Your task to perform on an android device: Open accessibility settings Image 0: 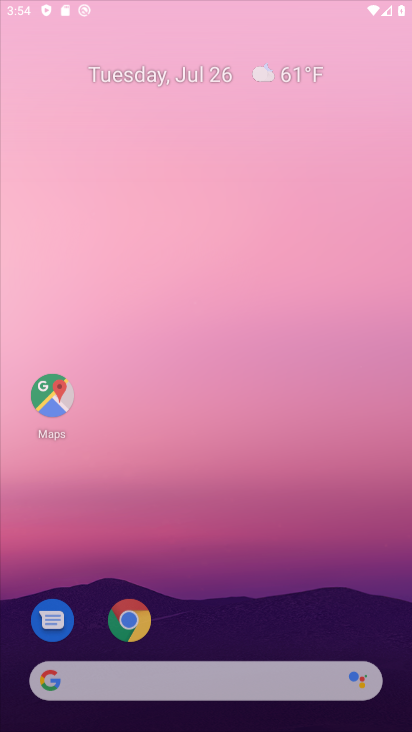
Step 0: press back button
Your task to perform on an android device: Open accessibility settings Image 1: 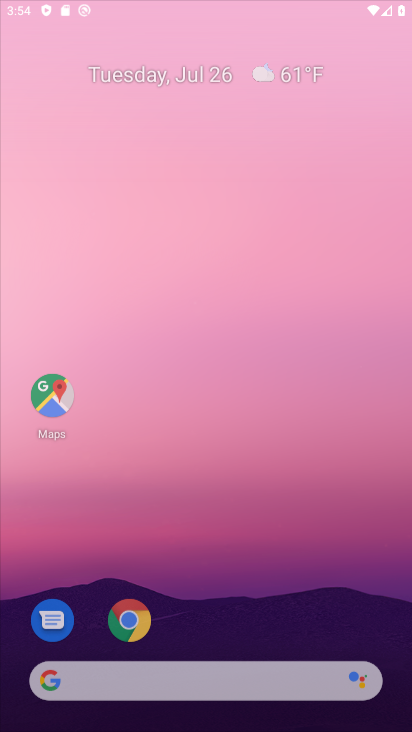
Step 1: press home button
Your task to perform on an android device: Open accessibility settings Image 2: 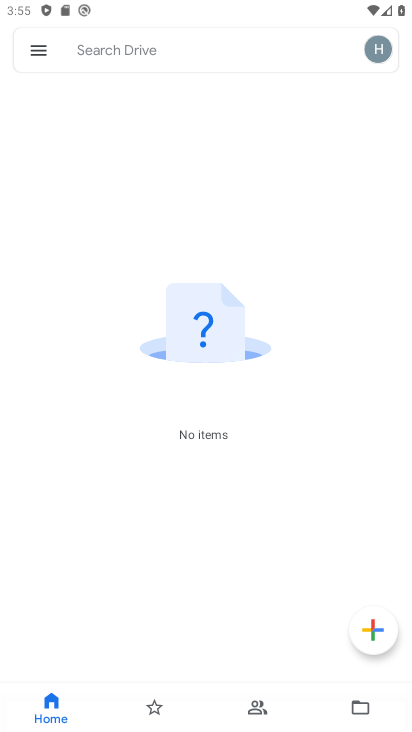
Step 2: click (193, 139)
Your task to perform on an android device: Open accessibility settings Image 3: 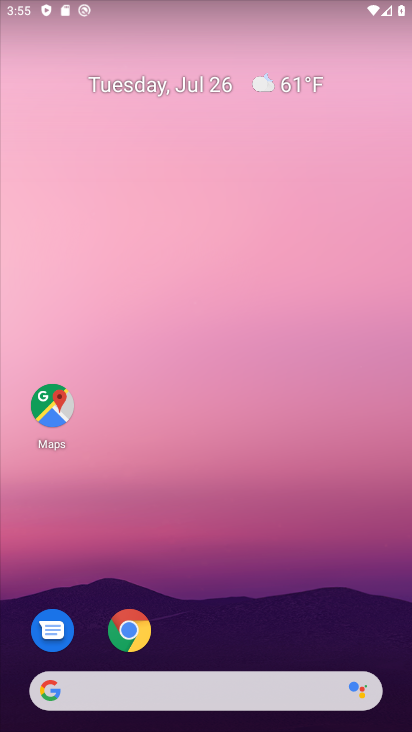
Step 3: drag from (205, 521) to (170, 102)
Your task to perform on an android device: Open accessibility settings Image 4: 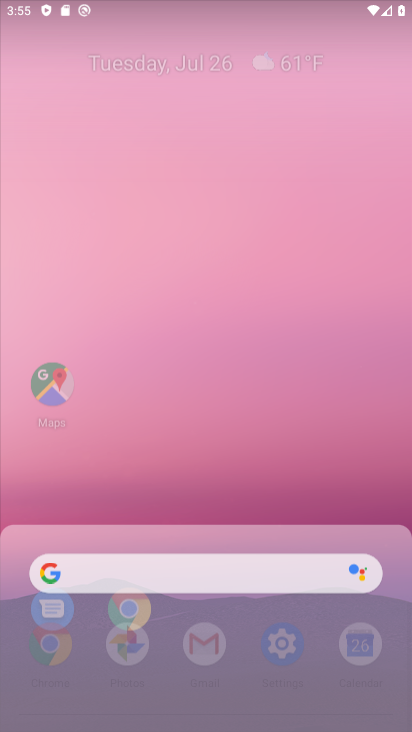
Step 4: drag from (218, 523) to (156, 95)
Your task to perform on an android device: Open accessibility settings Image 5: 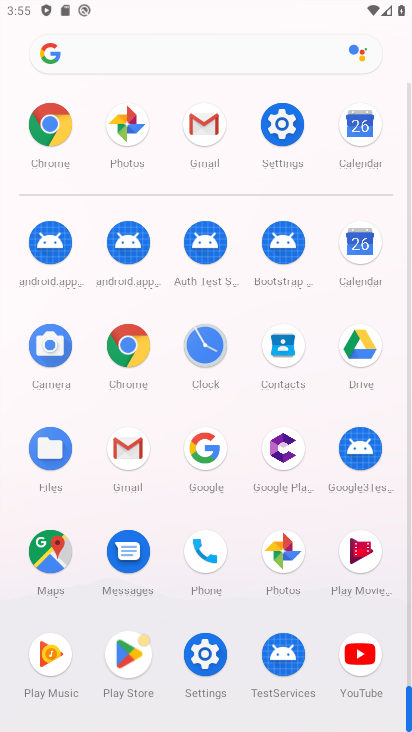
Step 5: drag from (278, 545) to (292, 130)
Your task to perform on an android device: Open accessibility settings Image 6: 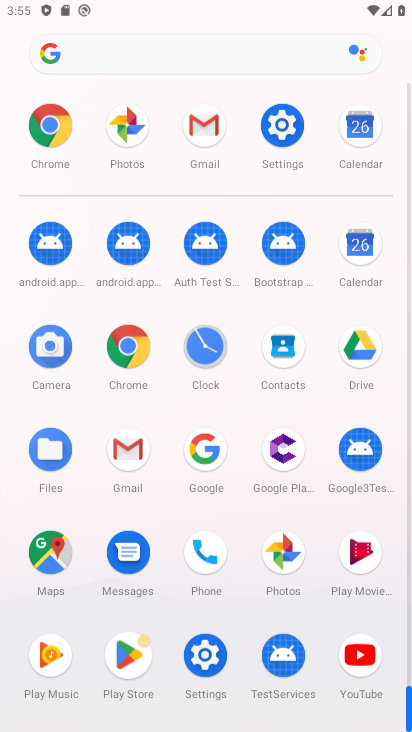
Step 6: drag from (258, 424) to (238, 105)
Your task to perform on an android device: Open accessibility settings Image 7: 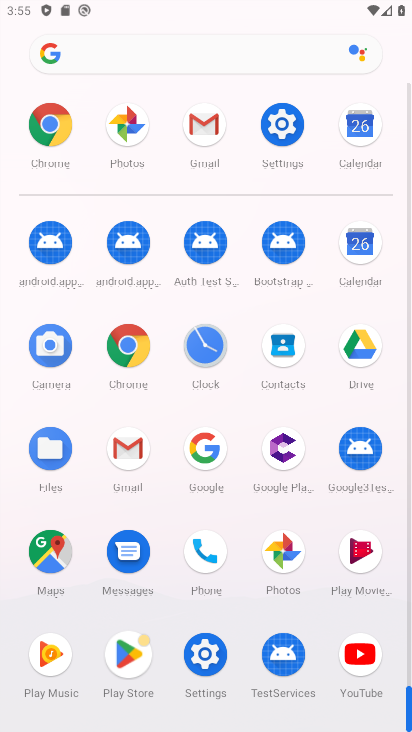
Step 7: click (55, 549)
Your task to perform on an android device: Open accessibility settings Image 8: 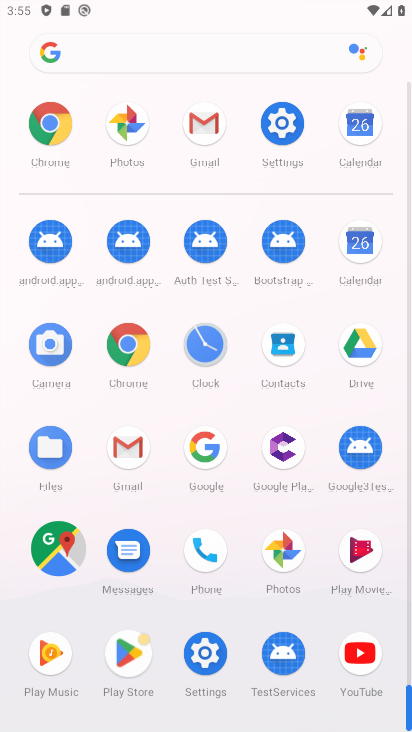
Step 8: click (55, 551)
Your task to perform on an android device: Open accessibility settings Image 9: 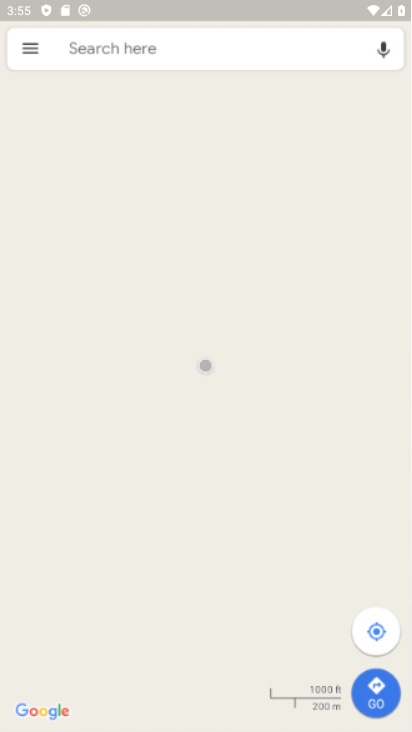
Step 9: click (55, 551)
Your task to perform on an android device: Open accessibility settings Image 10: 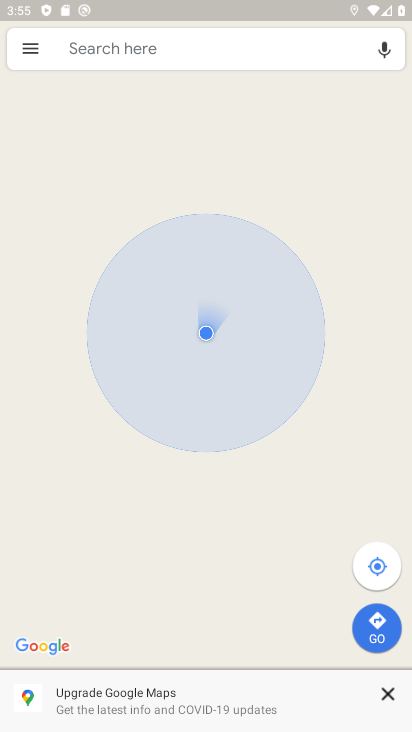
Step 10: press back button
Your task to perform on an android device: Open accessibility settings Image 11: 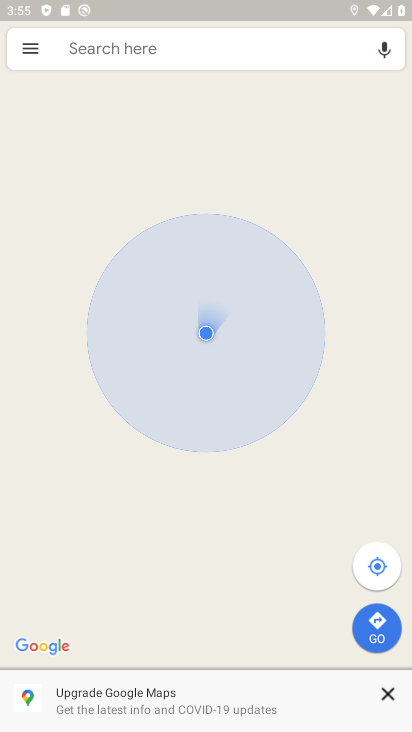
Step 11: press back button
Your task to perform on an android device: Open accessibility settings Image 12: 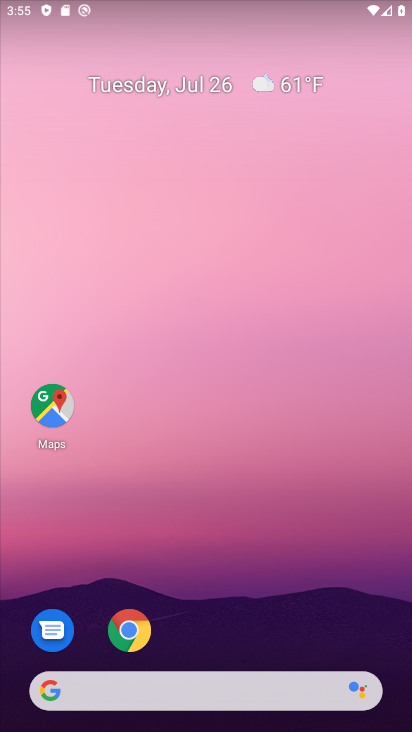
Step 12: drag from (181, 557) to (189, 29)
Your task to perform on an android device: Open accessibility settings Image 13: 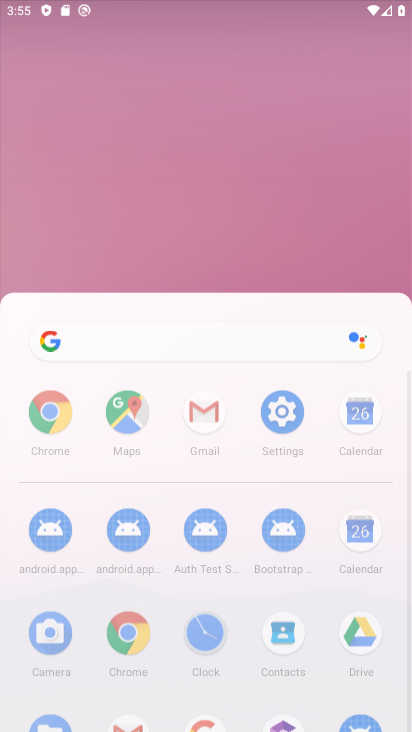
Step 13: drag from (235, 466) to (241, 137)
Your task to perform on an android device: Open accessibility settings Image 14: 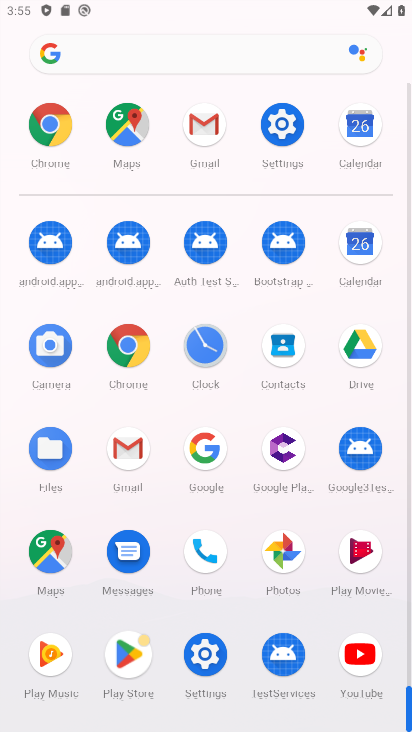
Step 14: click (205, 653)
Your task to perform on an android device: Open accessibility settings Image 15: 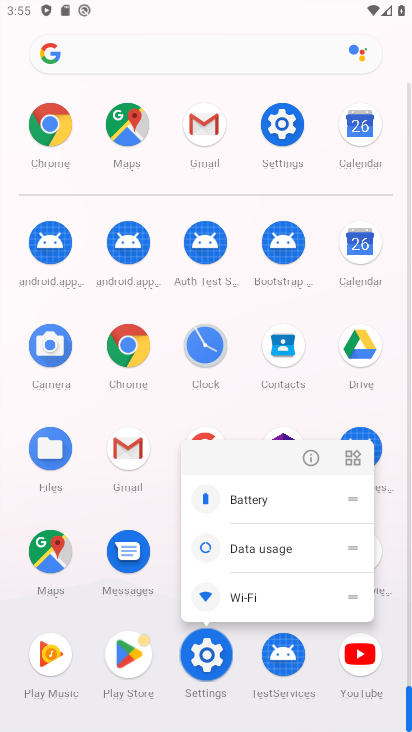
Step 15: click (208, 660)
Your task to perform on an android device: Open accessibility settings Image 16: 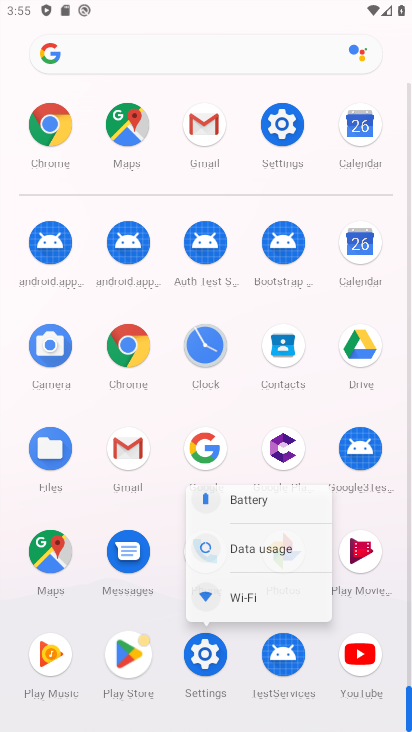
Step 16: click (208, 660)
Your task to perform on an android device: Open accessibility settings Image 17: 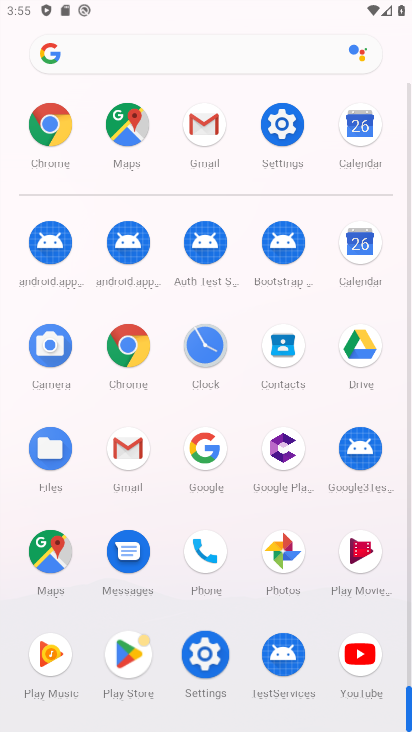
Step 17: click (205, 663)
Your task to perform on an android device: Open accessibility settings Image 18: 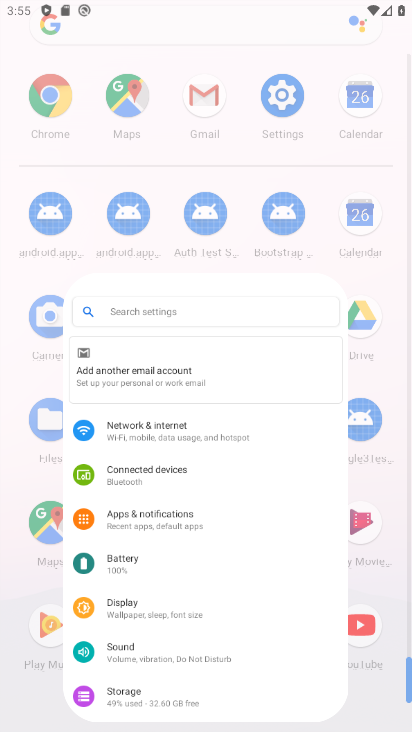
Step 18: click (204, 664)
Your task to perform on an android device: Open accessibility settings Image 19: 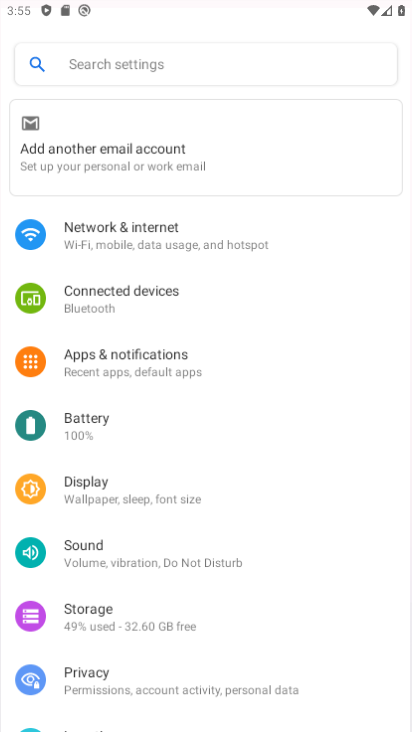
Step 19: click (202, 664)
Your task to perform on an android device: Open accessibility settings Image 20: 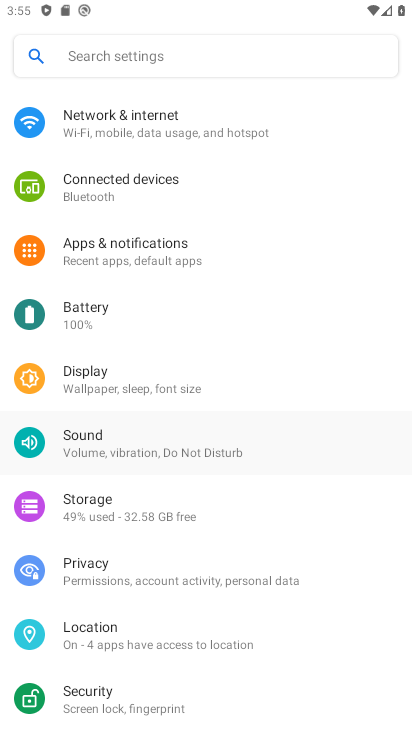
Step 20: click (200, 664)
Your task to perform on an android device: Open accessibility settings Image 21: 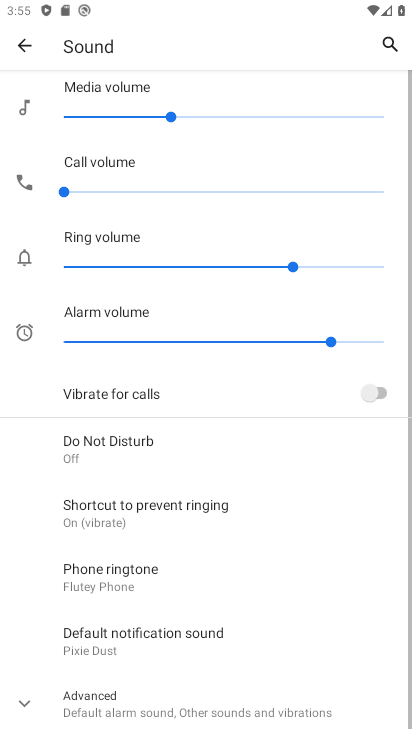
Step 21: drag from (154, 544) to (152, 174)
Your task to perform on an android device: Open accessibility settings Image 22: 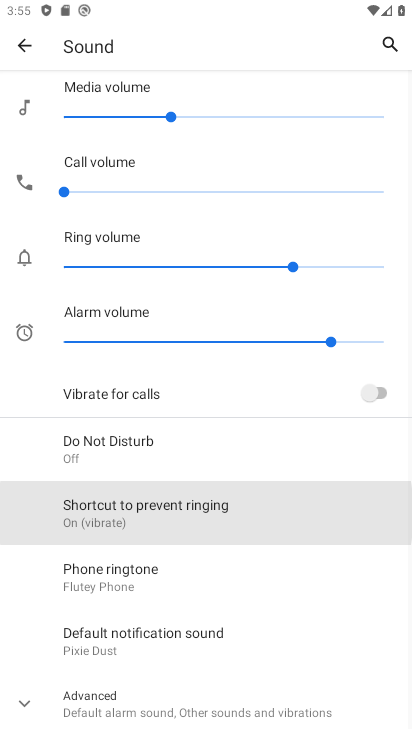
Step 22: drag from (184, 470) to (188, 143)
Your task to perform on an android device: Open accessibility settings Image 23: 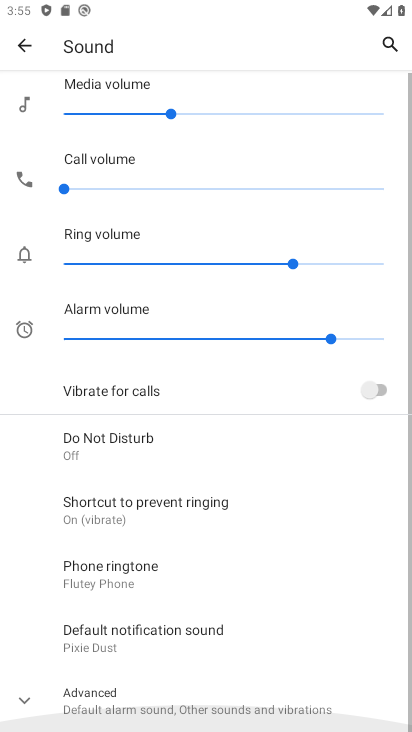
Step 23: drag from (165, 573) to (187, 160)
Your task to perform on an android device: Open accessibility settings Image 24: 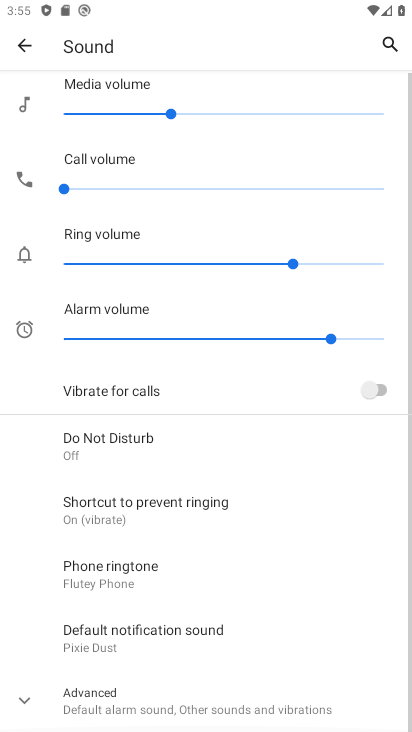
Step 24: drag from (215, 523) to (161, 151)
Your task to perform on an android device: Open accessibility settings Image 25: 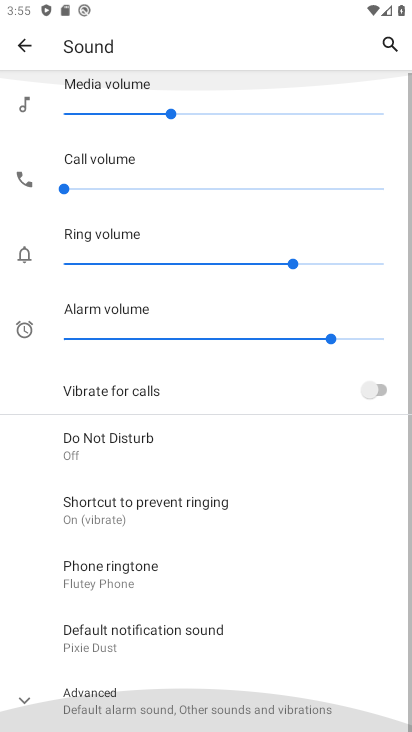
Step 25: drag from (175, 542) to (159, 219)
Your task to perform on an android device: Open accessibility settings Image 26: 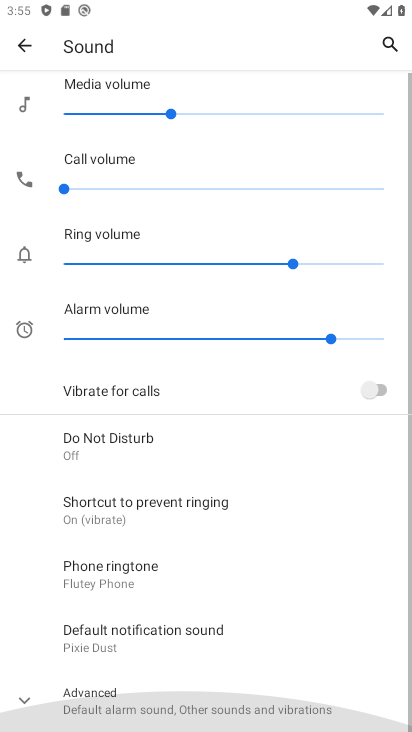
Step 26: drag from (171, 479) to (151, 241)
Your task to perform on an android device: Open accessibility settings Image 27: 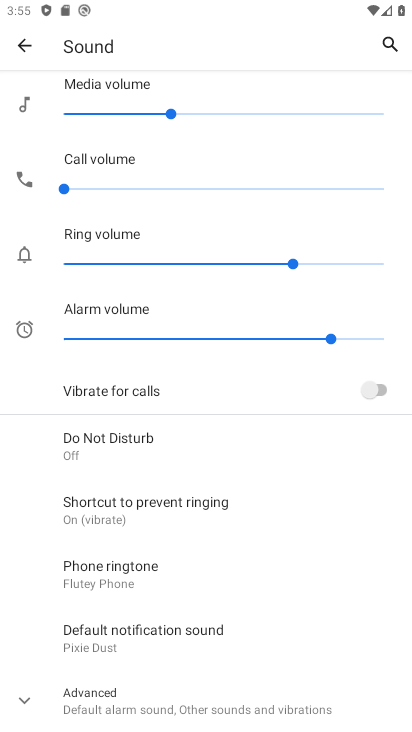
Step 27: click (20, 46)
Your task to perform on an android device: Open accessibility settings Image 28: 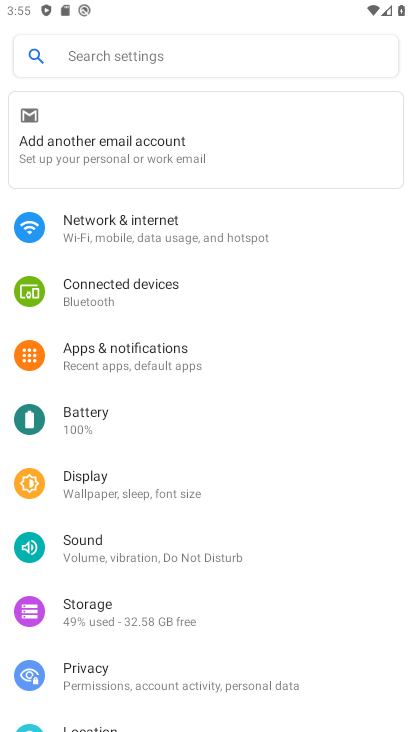
Step 28: drag from (138, 509) to (169, 126)
Your task to perform on an android device: Open accessibility settings Image 29: 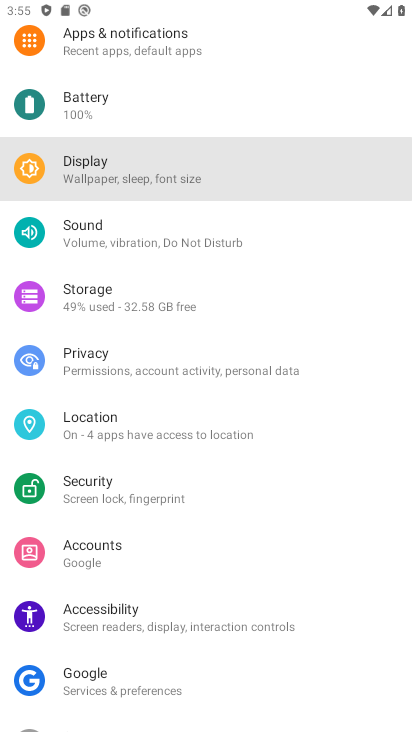
Step 29: drag from (204, 593) to (204, 225)
Your task to perform on an android device: Open accessibility settings Image 30: 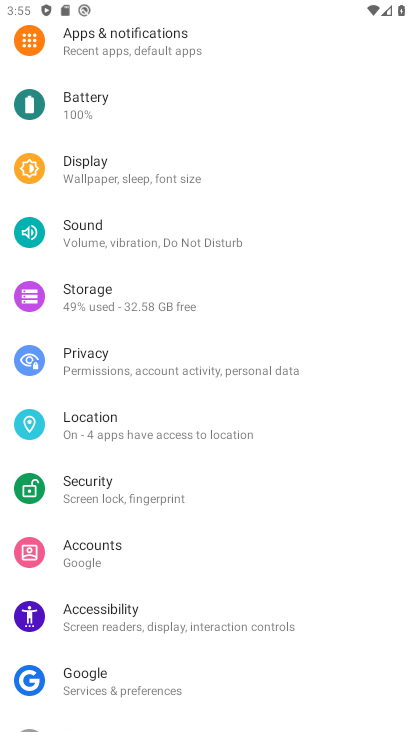
Step 30: drag from (185, 504) to (185, 269)
Your task to perform on an android device: Open accessibility settings Image 31: 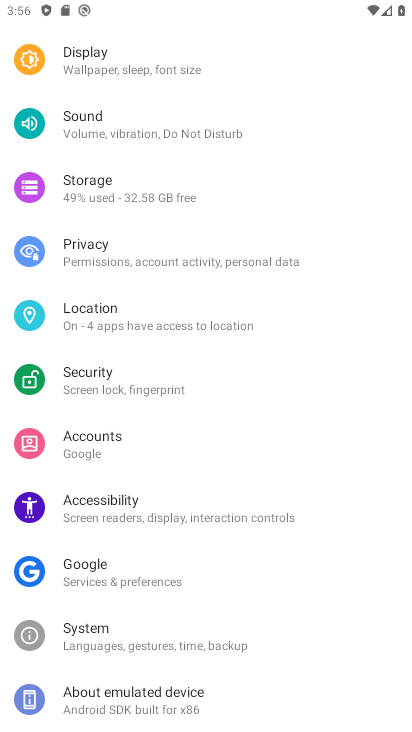
Step 31: click (94, 509)
Your task to perform on an android device: Open accessibility settings Image 32: 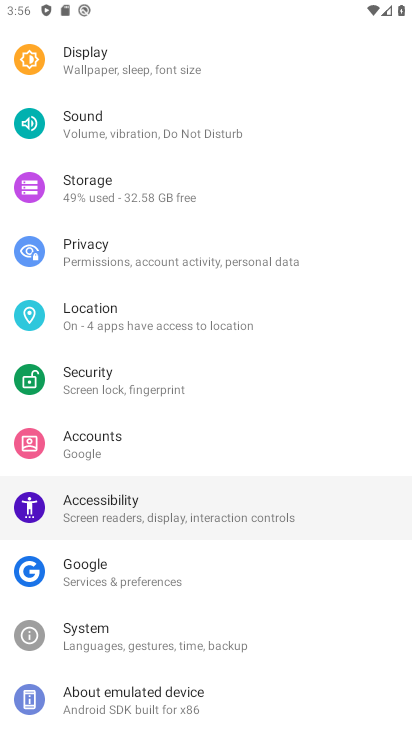
Step 32: click (94, 509)
Your task to perform on an android device: Open accessibility settings Image 33: 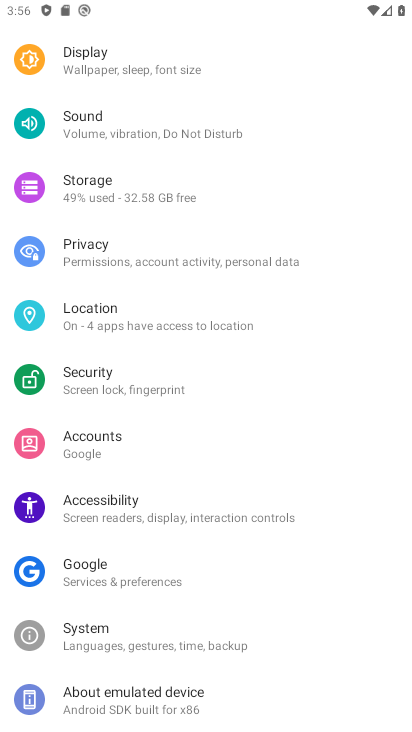
Step 33: click (94, 509)
Your task to perform on an android device: Open accessibility settings Image 34: 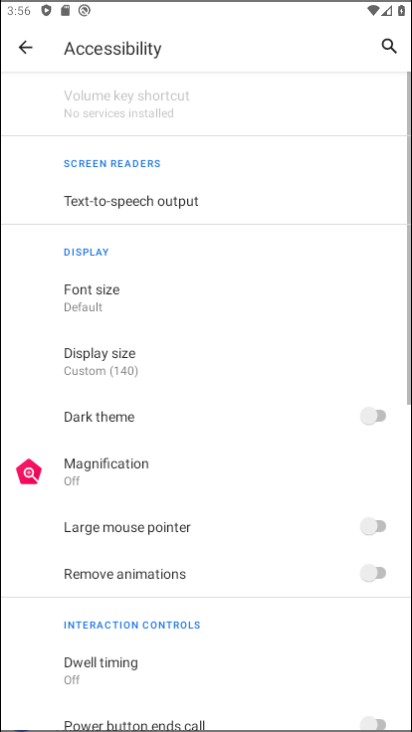
Step 34: click (94, 509)
Your task to perform on an android device: Open accessibility settings Image 35: 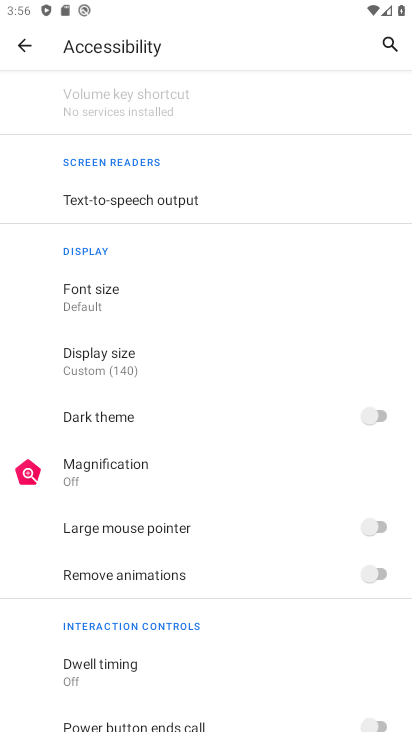
Step 35: task complete